Your task to perform on an android device: change notifications settings Image 0: 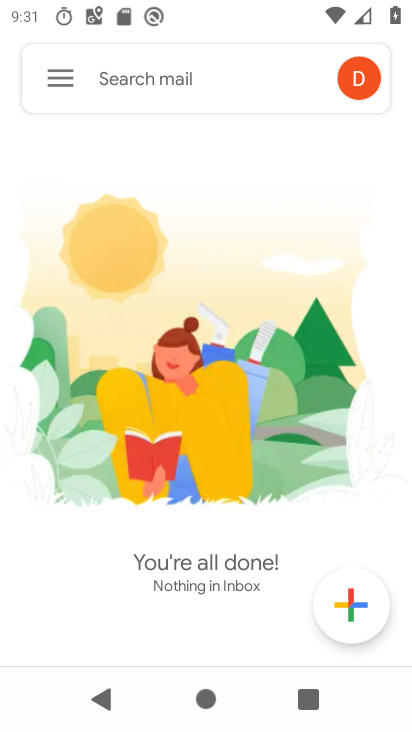
Step 0: press home button
Your task to perform on an android device: change notifications settings Image 1: 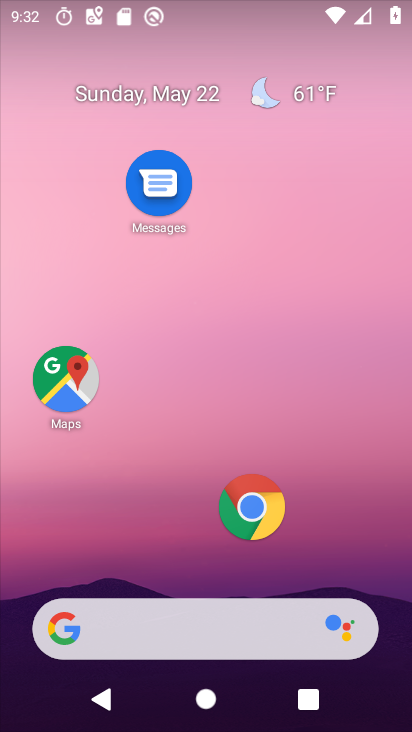
Step 1: drag from (178, 554) to (285, 17)
Your task to perform on an android device: change notifications settings Image 2: 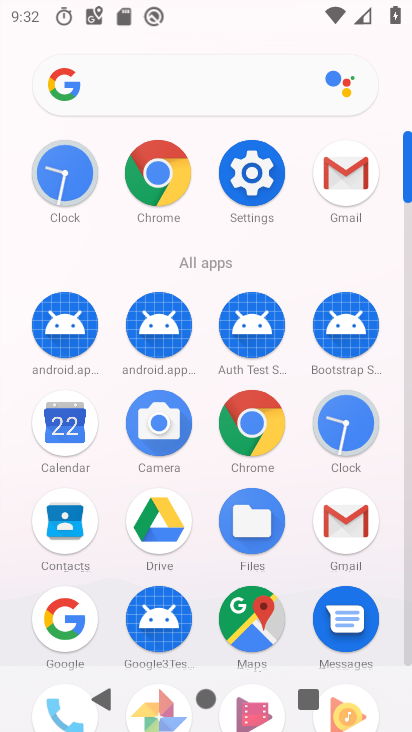
Step 2: click (248, 205)
Your task to perform on an android device: change notifications settings Image 3: 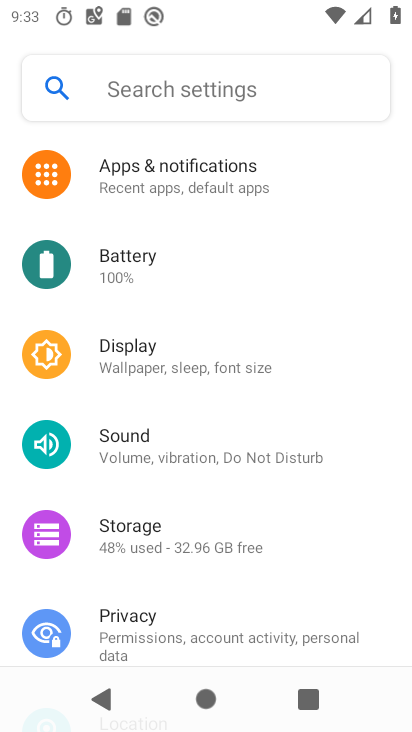
Step 3: click (151, 157)
Your task to perform on an android device: change notifications settings Image 4: 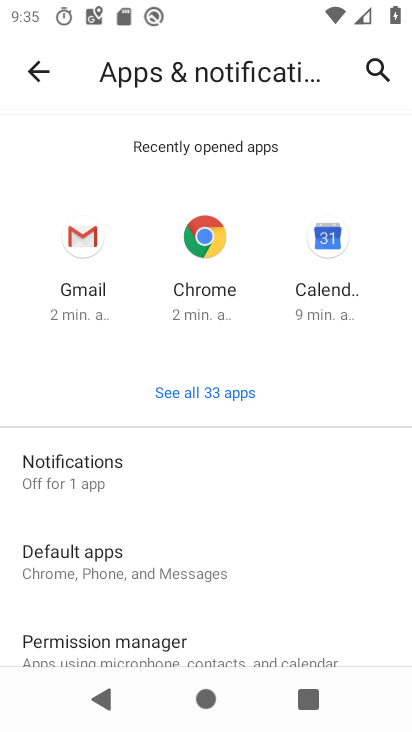
Step 4: click (77, 460)
Your task to perform on an android device: change notifications settings Image 5: 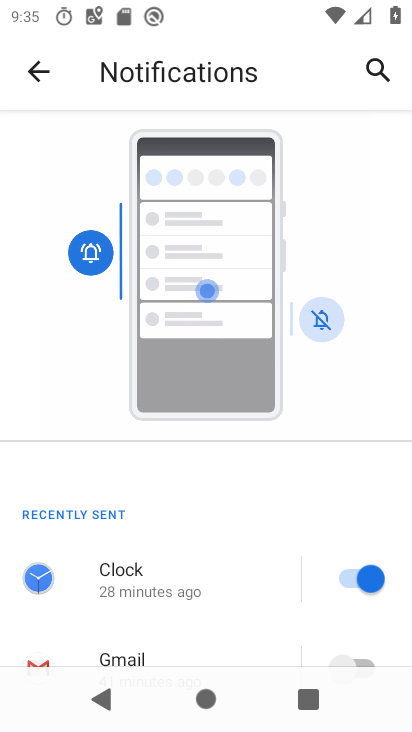
Step 5: drag from (155, 627) to (253, 138)
Your task to perform on an android device: change notifications settings Image 6: 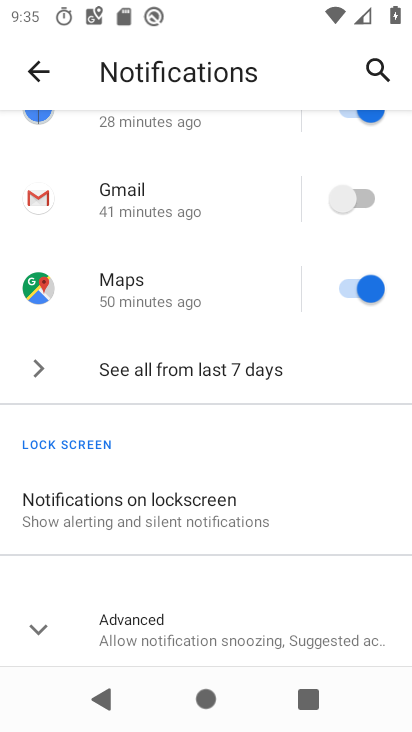
Step 6: click (151, 526)
Your task to perform on an android device: change notifications settings Image 7: 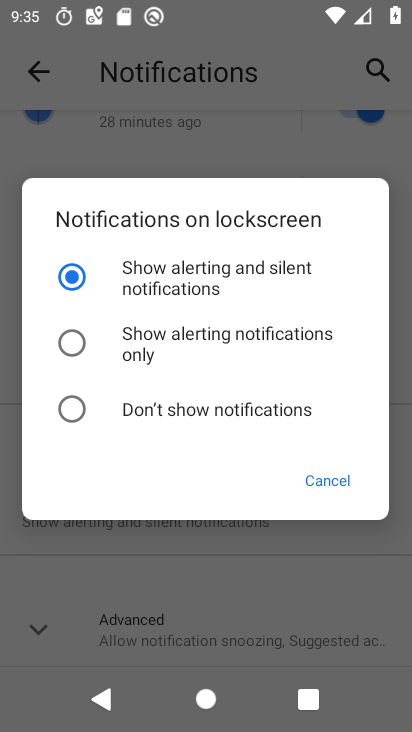
Step 7: click (192, 415)
Your task to perform on an android device: change notifications settings Image 8: 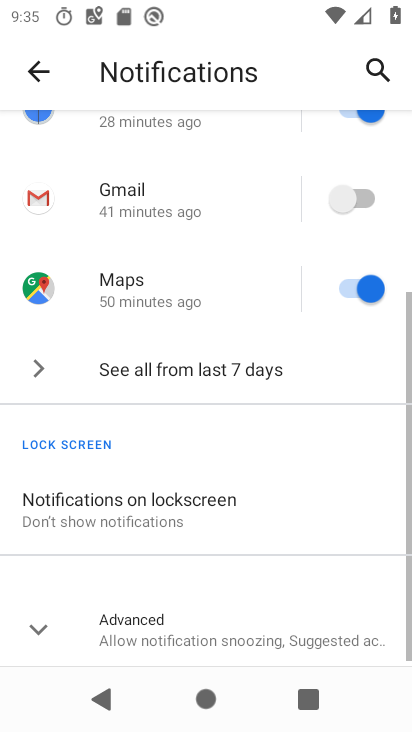
Step 8: task complete